Your task to perform on an android device: change the clock display to show seconds Image 0: 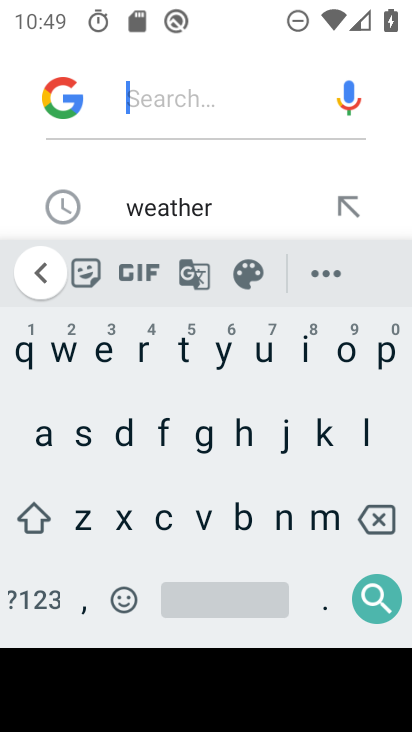
Step 0: press home button
Your task to perform on an android device: change the clock display to show seconds Image 1: 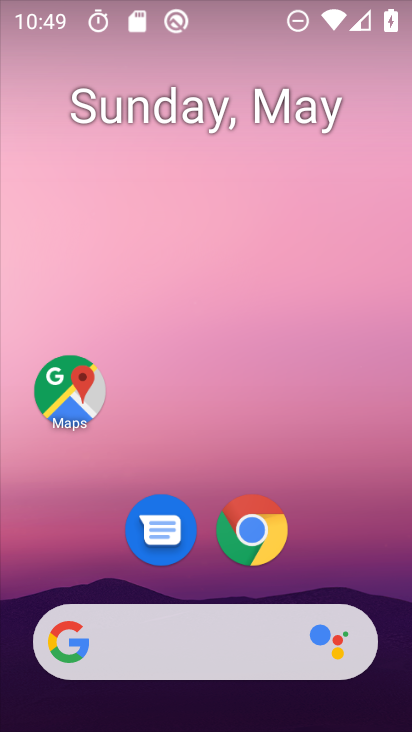
Step 1: drag from (297, 644) to (294, 102)
Your task to perform on an android device: change the clock display to show seconds Image 2: 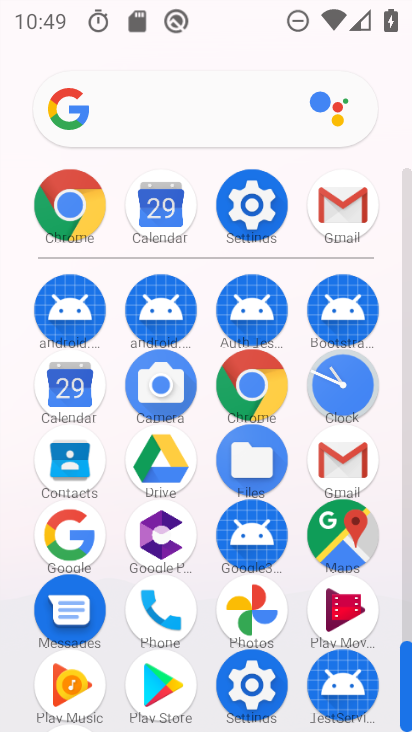
Step 2: drag from (239, 207) to (238, 250)
Your task to perform on an android device: change the clock display to show seconds Image 3: 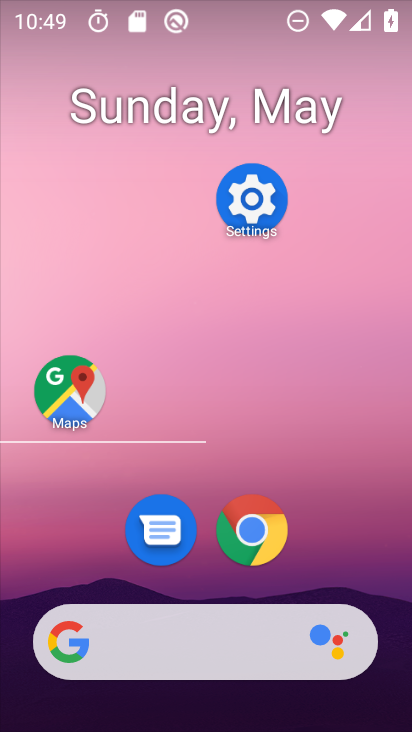
Step 3: drag from (259, 683) to (258, 231)
Your task to perform on an android device: change the clock display to show seconds Image 4: 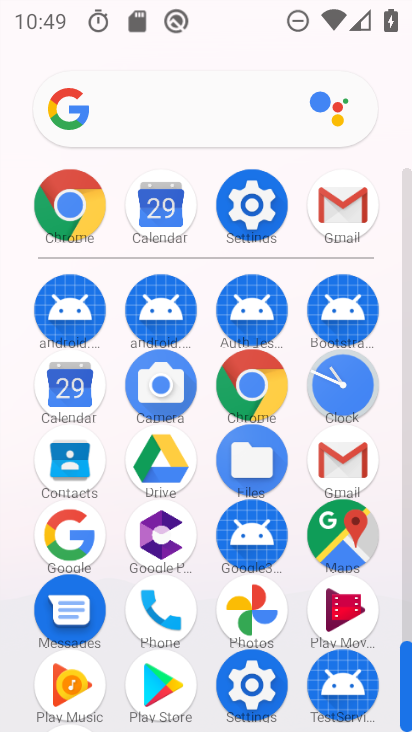
Step 4: click (358, 373)
Your task to perform on an android device: change the clock display to show seconds Image 5: 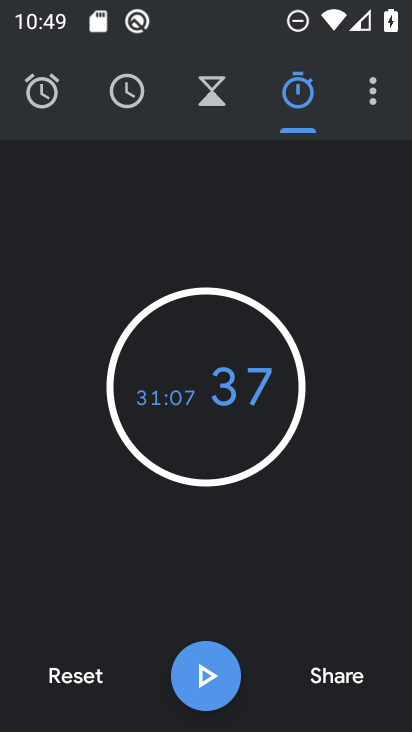
Step 5: click (370, 92)
Your task to perform on an android device: change the clock display to show seconds Image 6: 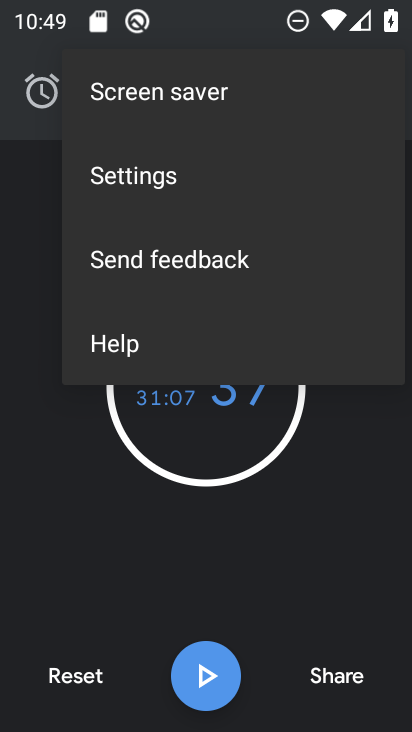
Step 6: click (181, 188)
Your task to perform on an android device: change the clock display to show seconds Image 7: 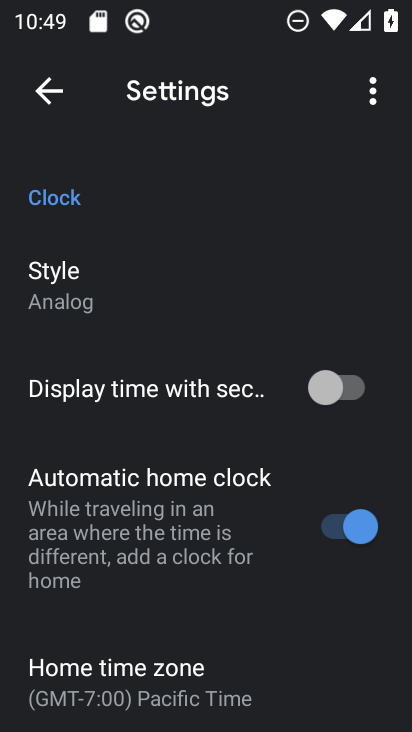
Step 7: click (341, 381)
Your task to perform on an android device: change the clock display to show seconds Image 8: 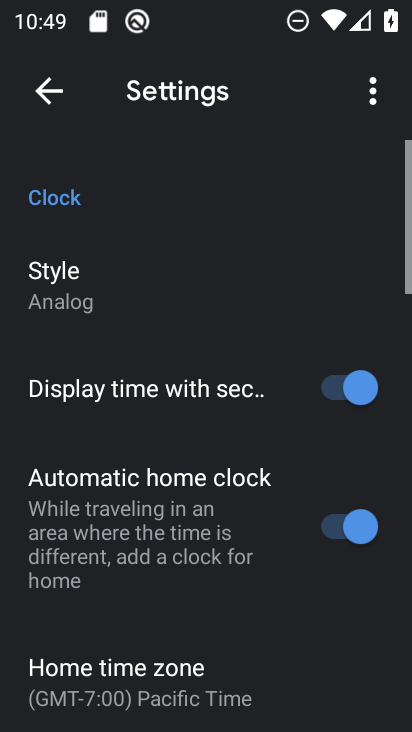
Step 8: task complete